Your task to perform on an android device: Go to ESPN.com Image 0: 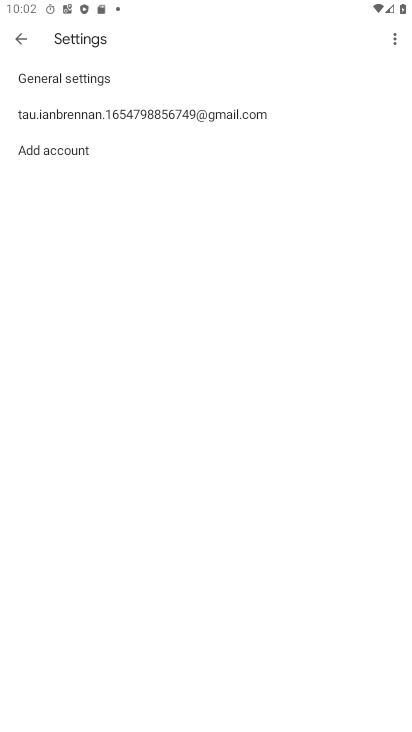
Step 0: press back button
Your task to perform on an android device: Go to ESPN.com Image 1: 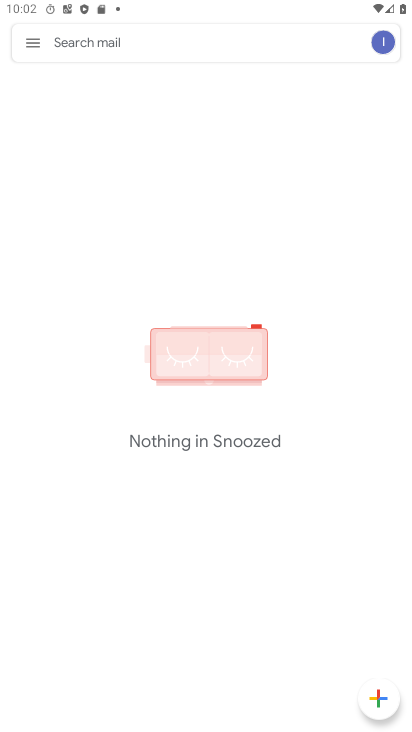
Step 1: press home button
Your task to perform on an android device: Go to ESPN.com Image 2: 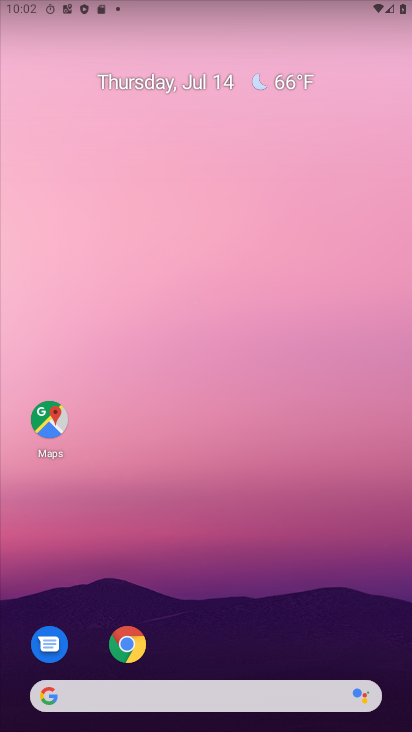
Step 2: drag from (212, 665) to (181, 272)
Your task to perform on an android device: Go to ESPN.com Image 3: 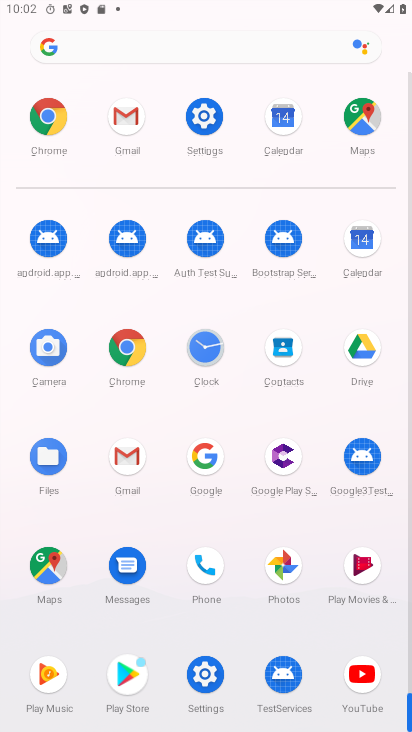
Step 3: click (49, 112)
Your task to perform on an android device: Go to ESPN.com Image 4: 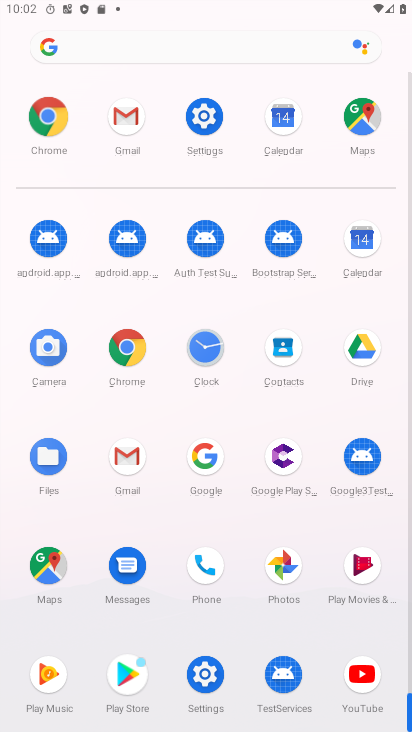
Step 4: click (48, 113)
Your task to perform on an android device: Go to ESPN.com Image 5: 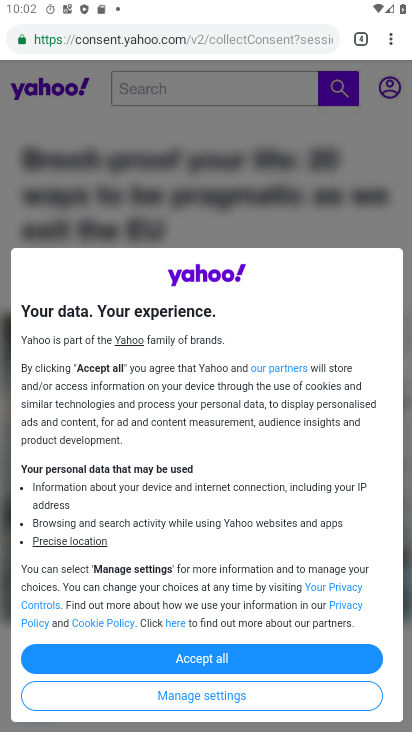
Step 5: drag from (396, 37) to (255, 83)
Your task to perform on an android device: Go to ESPN.com Image 6: 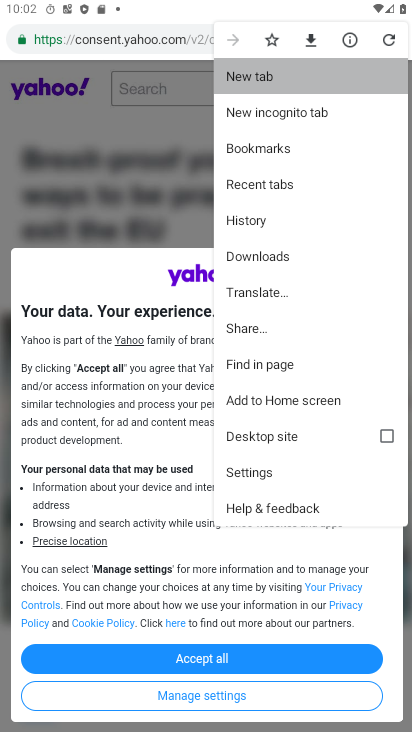
Step 6: click (255, 83)
Your task to perform on an android device: Go to ESPN.com Image 7: 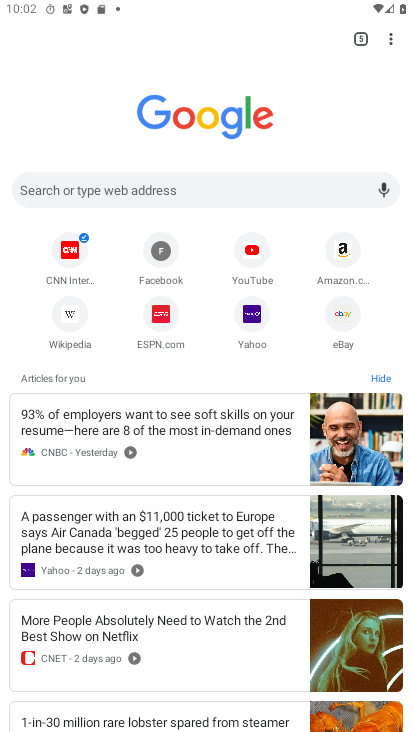
Step 7: click (175, 314)
Your task to perform on an android device: Go to ESPN.com Image 8: 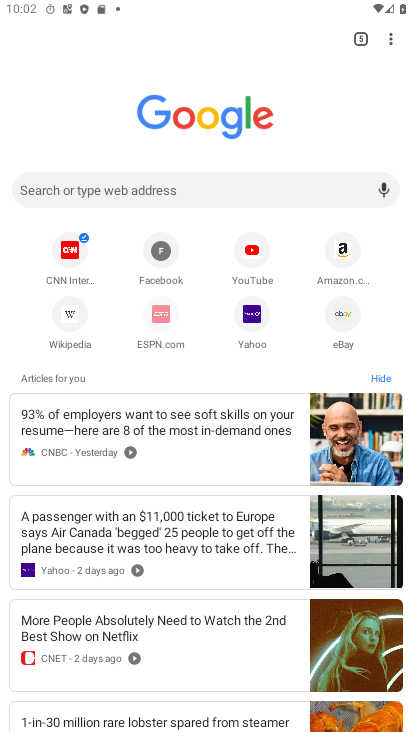
Step 8: click (175, 304)
Your task to perform on an android device: Go to ESPN.com Image 9: 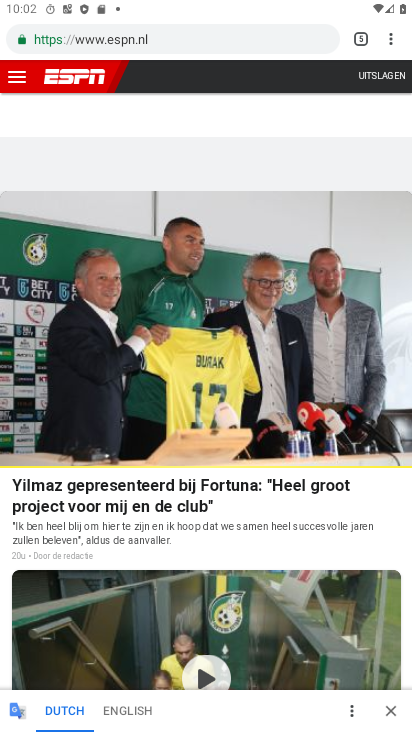
Step 9: task complete